Your task to perform on an android device: snooze an email in the gmail app Image 0: 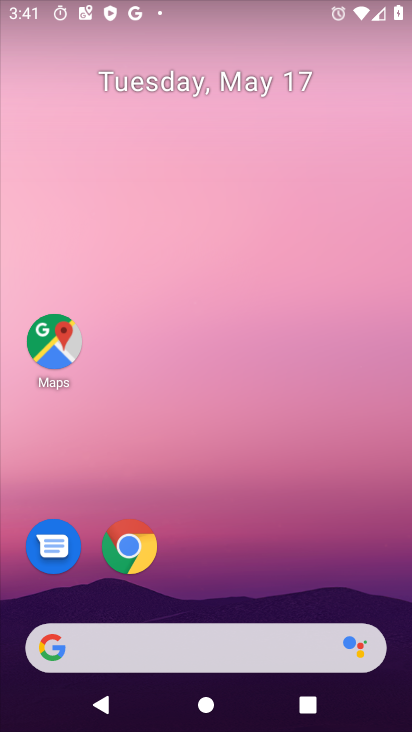
Step 0: click (374, 400)
Your task to perform on an android device: snooze an email in the gmail app Image 1: 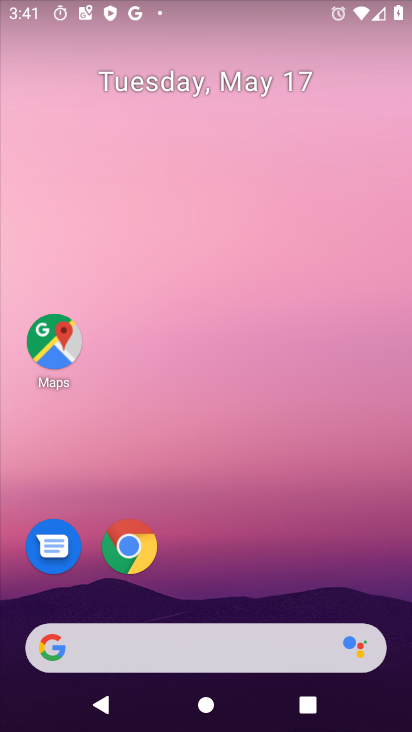
Step 1: click (378, 375)
Your task to perform on an android device: snooze an email in the gmail app Image 2: 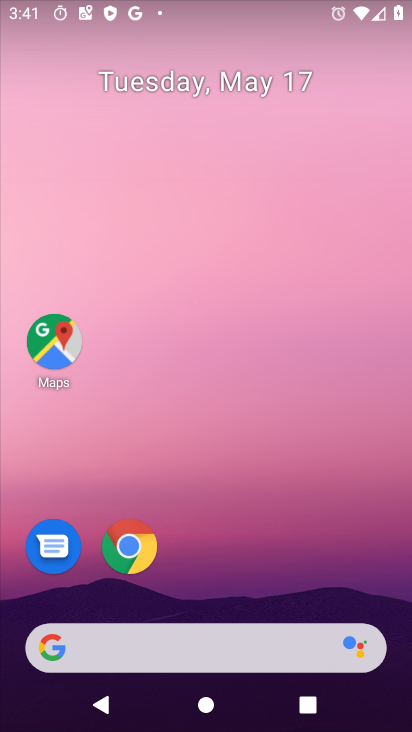
Step 2: drag from (395, 497) to (379, 182)
Your task to perform on an android device: snooze an email in the gmail app Image 3: 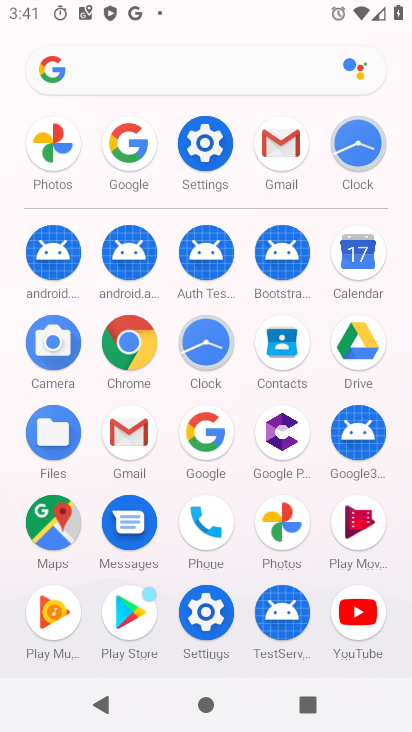
Step 3: click (137, 433)
Your task to perform on an android device: snooze an email in the gmail app Image 4: 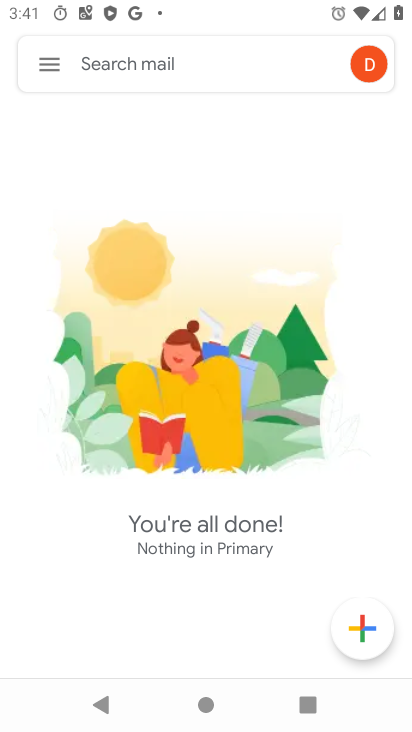
Step 4: click (40, 72)
Your task to perform on an android device: snooze an email in the gmail app Image 5: 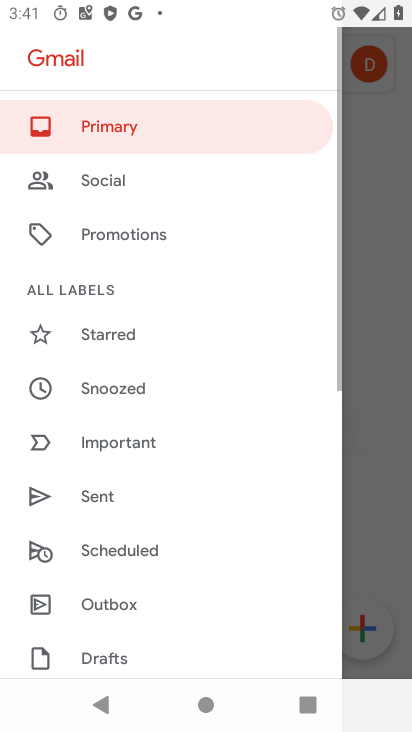
Step 5: click (87, 136)
Your task to perform on an android device: snooze an email in the gmail app Image 6: 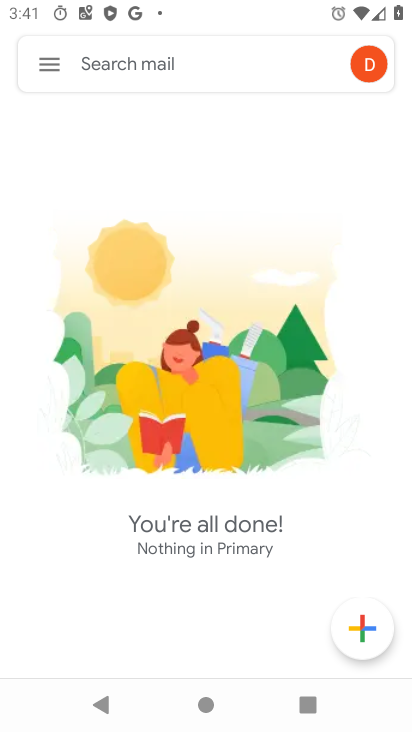
Step 6: task complete